Your task to perform on an android device: find which apps use the phone's location Image 0: 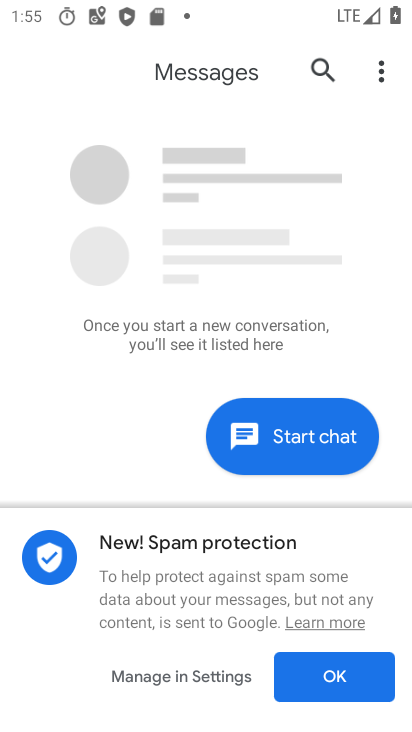
Step 0: press home button
Your task to perform on an android device: find which apps use the phone's location Image 1: 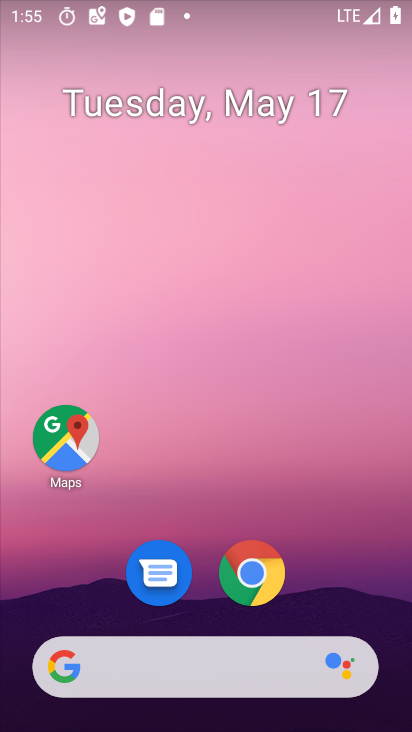
Step 1: drag from (128, 722) to (18, 2)
Your task to perform on an android device: find which apps use the phone's location Image 2: 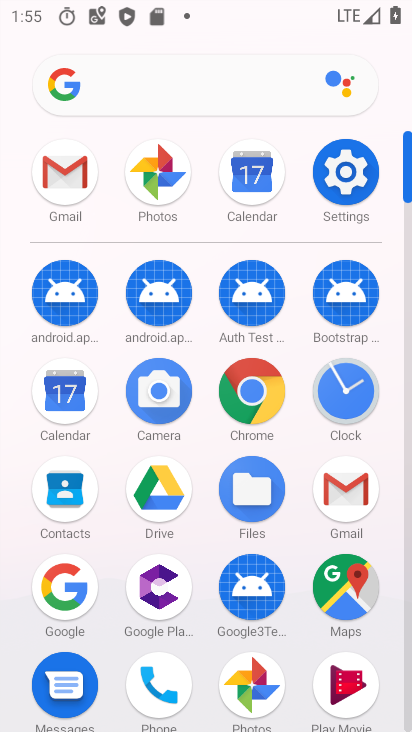
Step 2: click (321, 177)
Your task to perform on an android device: find which apps use the phone's location Image 3: 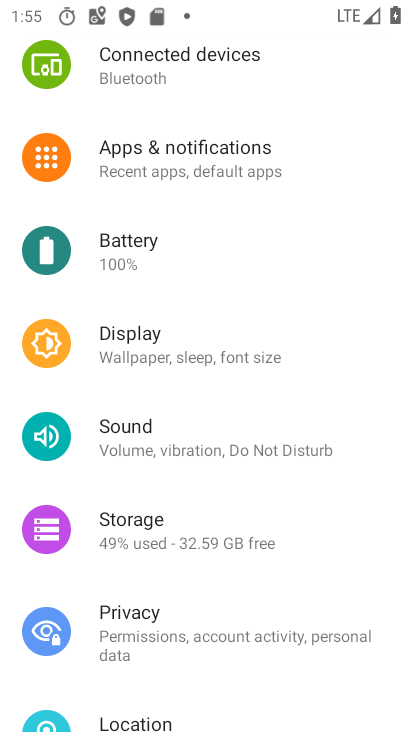
Step 3: drag from (245, 177) to (215, 693)
Your task to perform on an android device: find which apps use the phone's location Image 4: 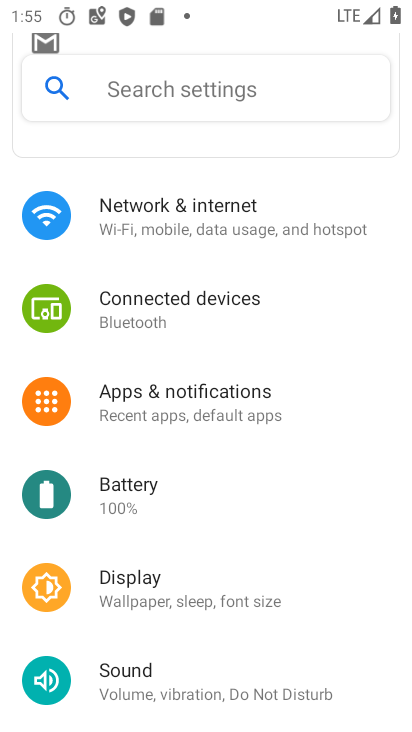
Step 4: drag from (186, 525) to (123, 66)
Your task to perform on an android device: find which apps use the phone's location Image 5: 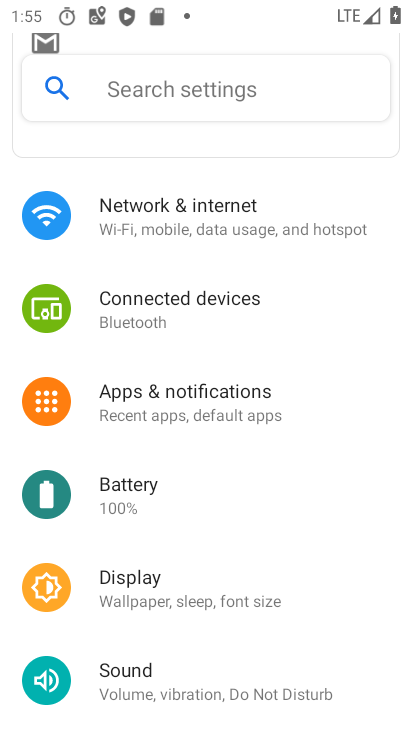
Step 5: drag from (197, 662) to (264, 20)
Your task to perform on an android device: find which apps use the phone's location Image 6: 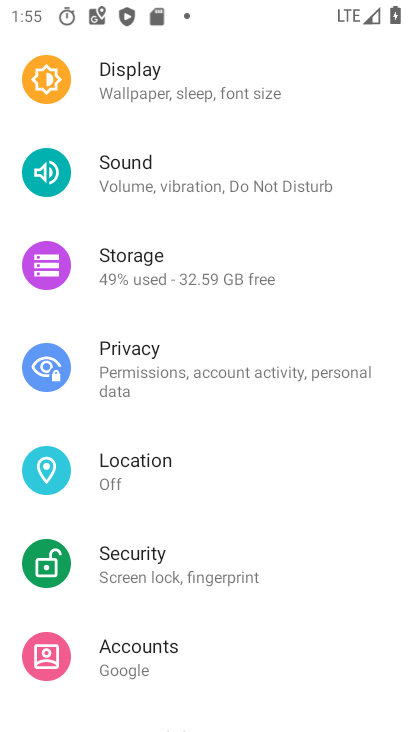
Step 6: click (189, 490)
Your task to perform on an android device: find which apps use the phone's location Image 7: 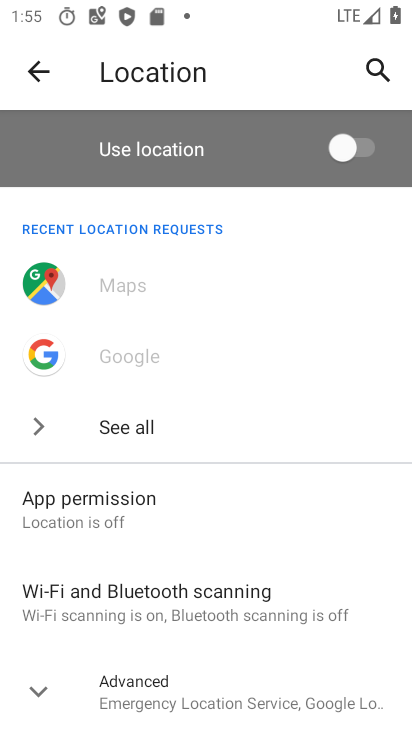
Step 7: click (113, 515)
Your task to perform on an android device: find which apps use the phone's location Image 8: 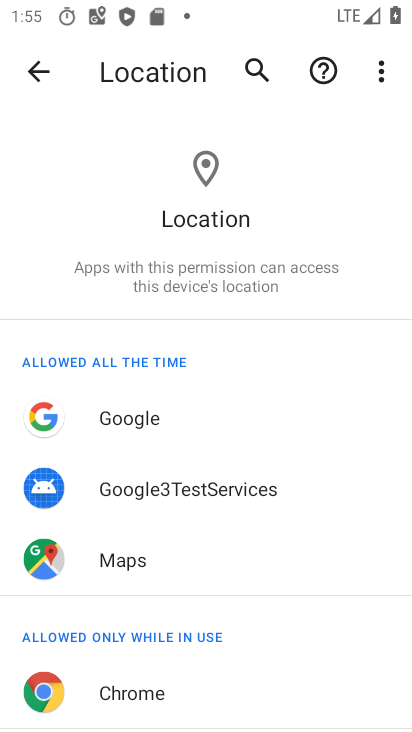
Step 8: task complete